Your task to perform on an android device: What is the recent news? Image 0: 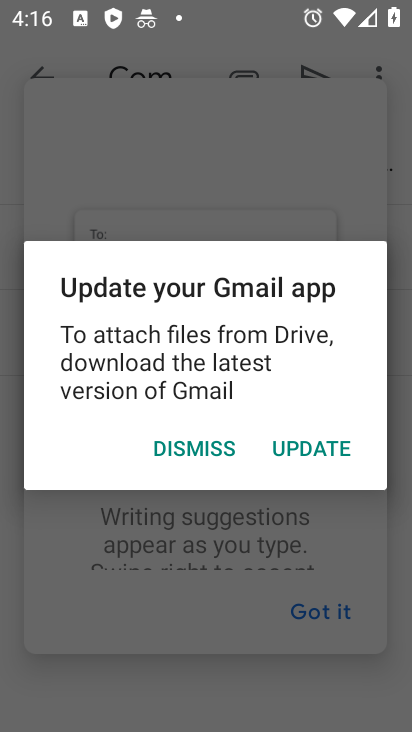
Step 0: press home button
Your task to perform on an android device: What is the recent news? Image 1: 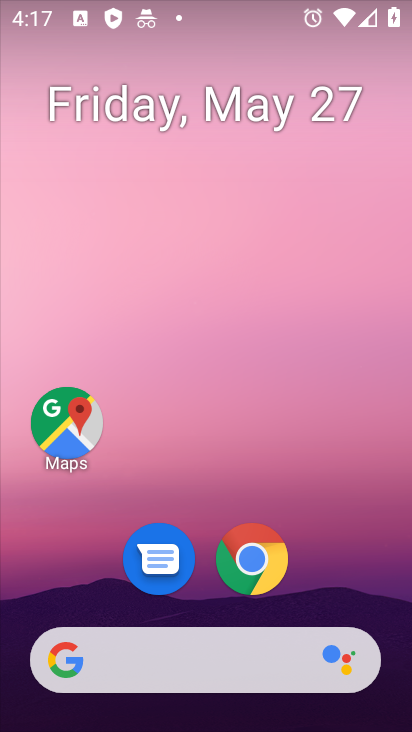
Step 1: drag from (360, 377) to (376, 45)
Your task to perform on an android device: What is the recent news? Image 2: 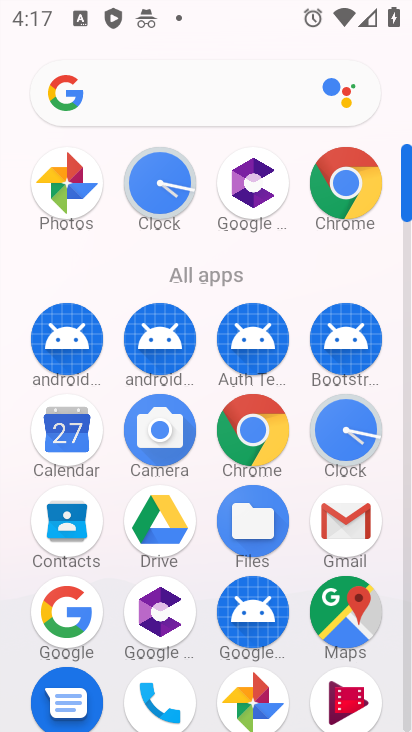
Step 2: click (275, 429)
Your task to perform on an android device: What is the recent news? Image 3: 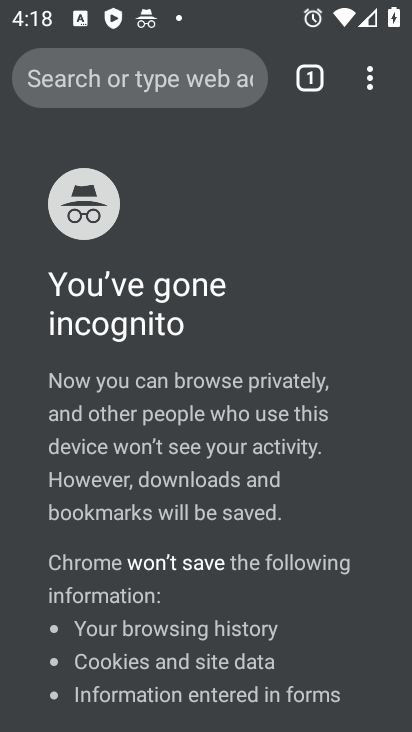
Step 3: press home button
Your task to perform on an android device: What is the recent news? Image 4: 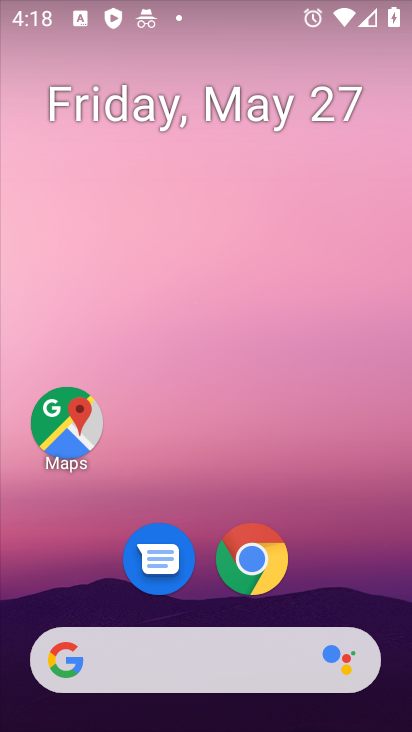
Step 4: drag from (324, 649) to (334, 33)
Your task to perform on an android device: What is the recent news? Image 5: 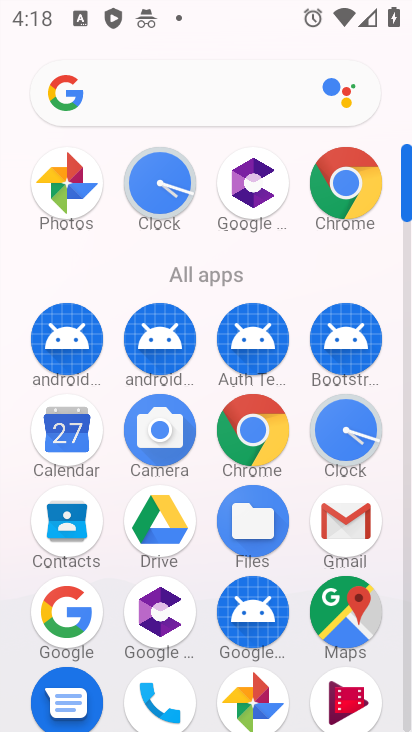
Step 5: click (267, 433)
Your task to perform on an android device: What is the recent news? Image 6: 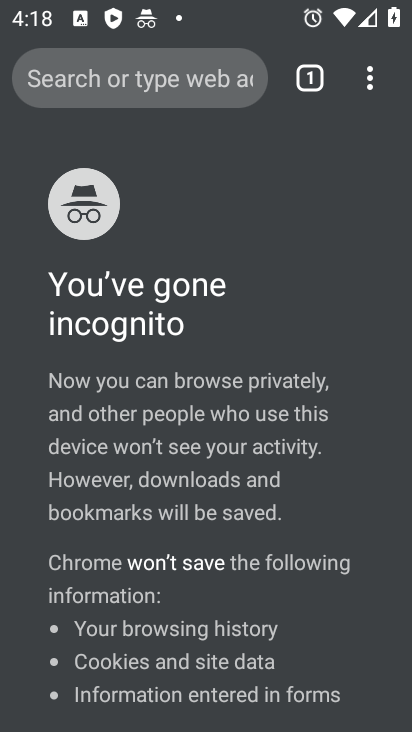
Step 6: click (201, 87)
Your task to perform on an android device: What is the recent news? Image 7: 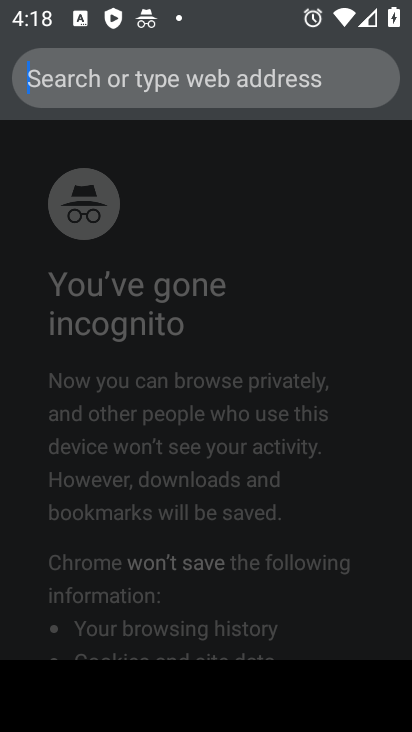
Step 7: type "recent news"
Your task to perform on an android device: What is the recent news? Image 8: 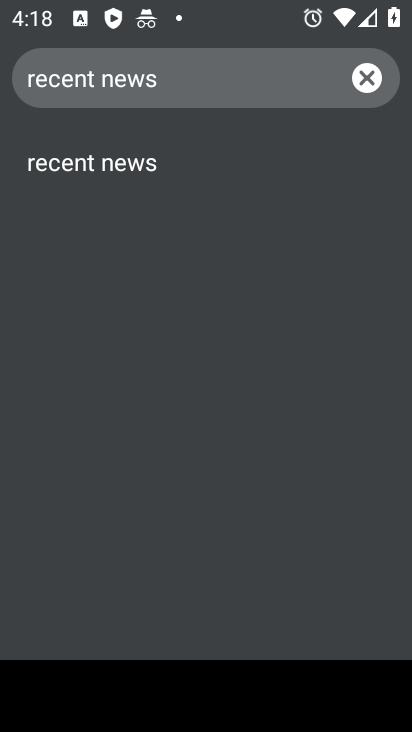
Step 8: click (136, 161)
Your task to perform on an android device: What is the recent news? Image 9: 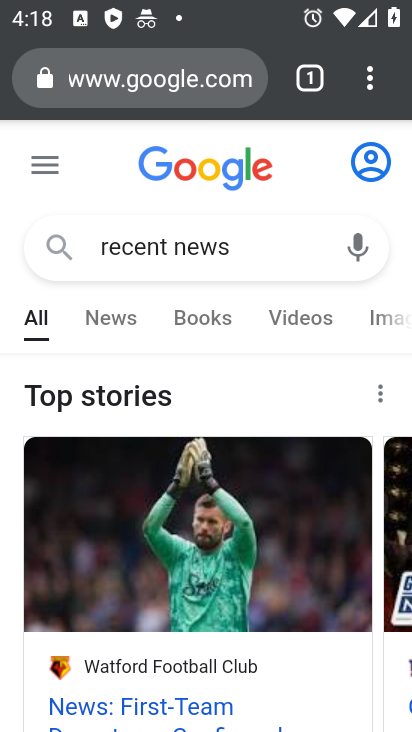
Step 9: task complete